Your task to perform on an android device: Open my contact list Image 0: 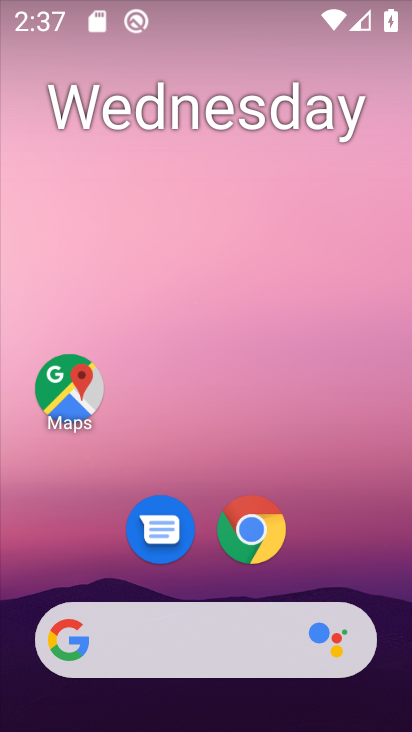
Step 0: drag from (94, 563) to (289, 23)
Your task to perform on an android device: Open my contact list Image 1: 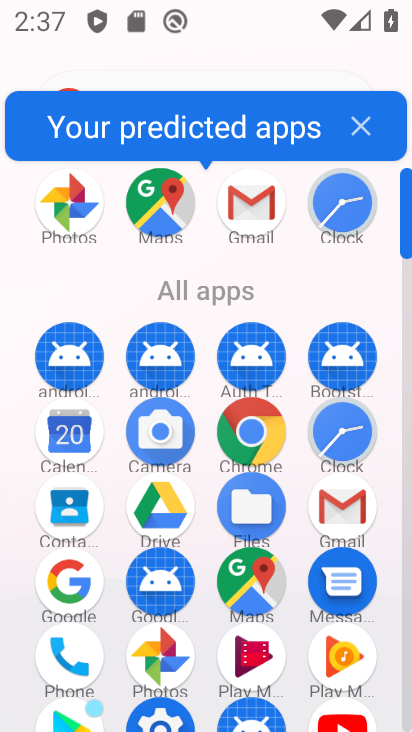
Step 1: click (82, 510)
Your task to perform on an android device: Open my contact list Image 2: 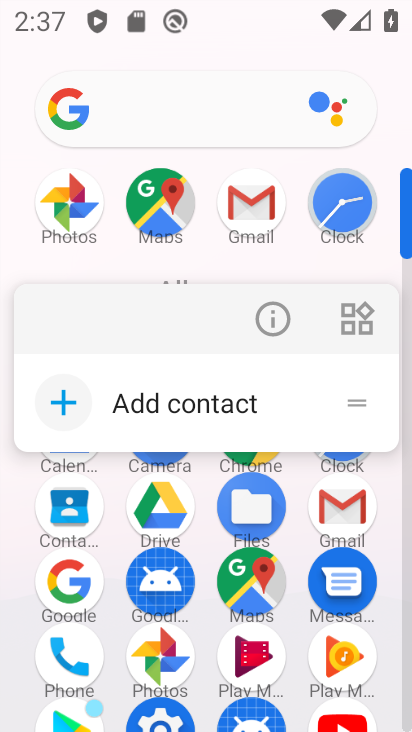
Step 2: click (69, 524)
Your task to perform on an android device: Open my contact list Image 3: 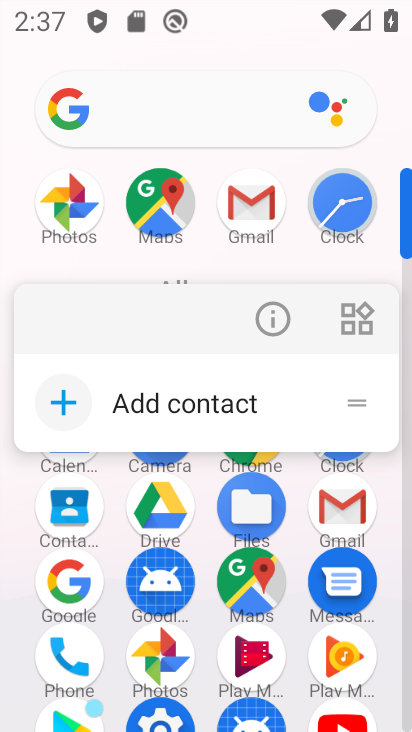
Step 3: click (80, 502)
Your task to perform on an android device: Open my contact list Image 4: 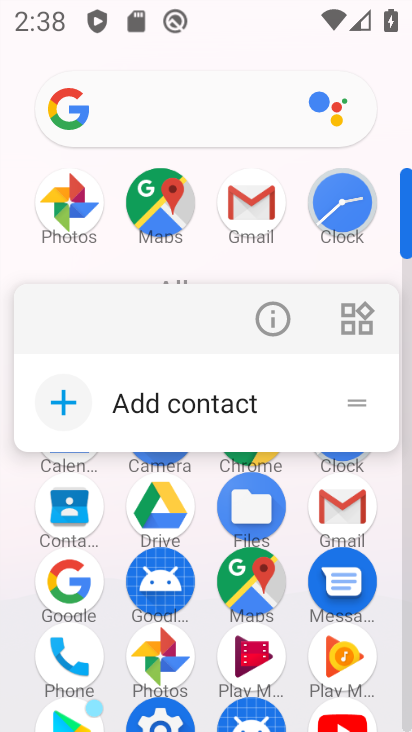
Step 4: click (76, 527)
Your task to perform on an android device: Open my contact list Image 5: 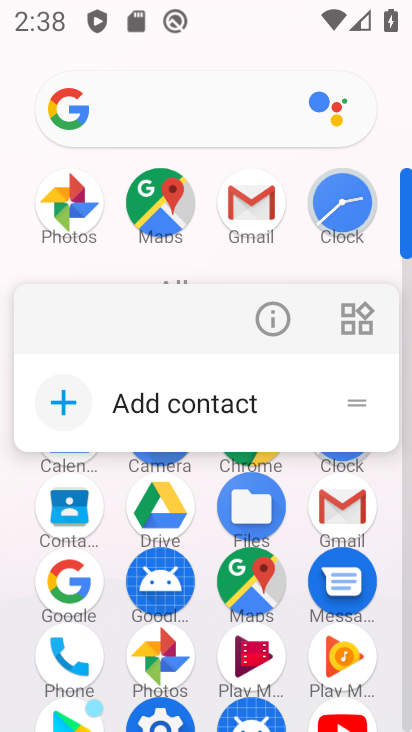
Step 5: click (77, 518)
Your task to perform on an android device: Open my contact list Image 6: 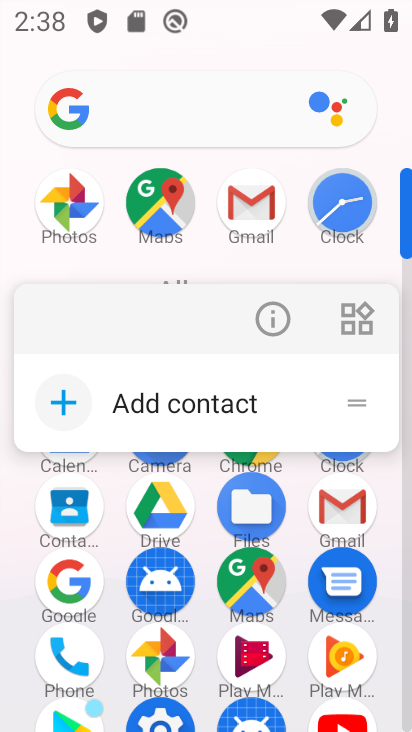
Step 6: click (68, 500)
Your task to perform on an android device: Open my contact list Image 7: 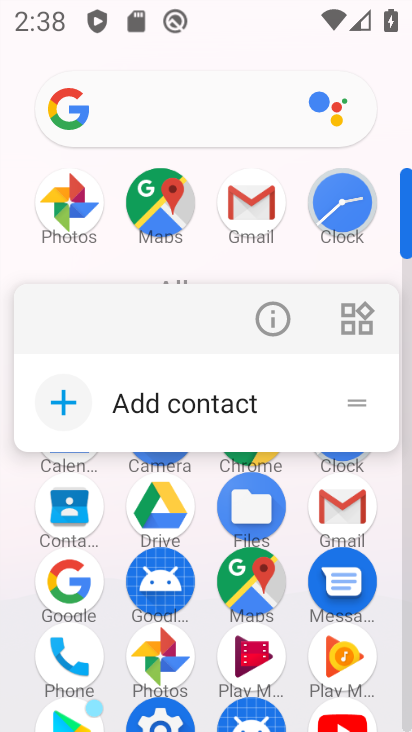
Step 7: click (70, 502)
Your task to perform on an android device: Open my contact list Image 8: 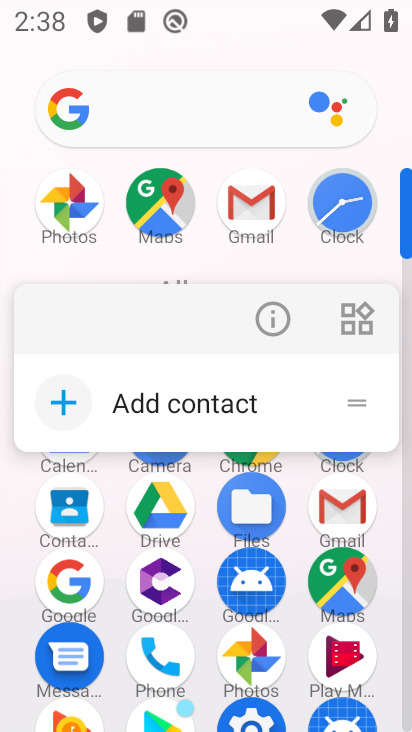
Step 8: click (83, 512)
Your task to perform on an android device: Open my contact list Image 9: 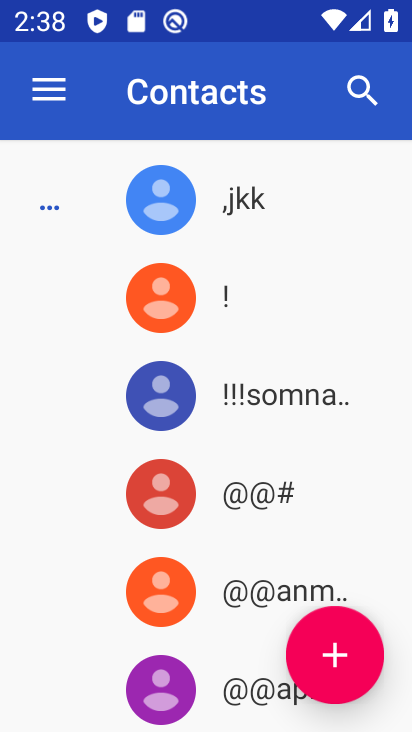
Step 9: task complete